Your task to perform on an android device: install app "HBO Max: Stream TV & Movies" Image 0: 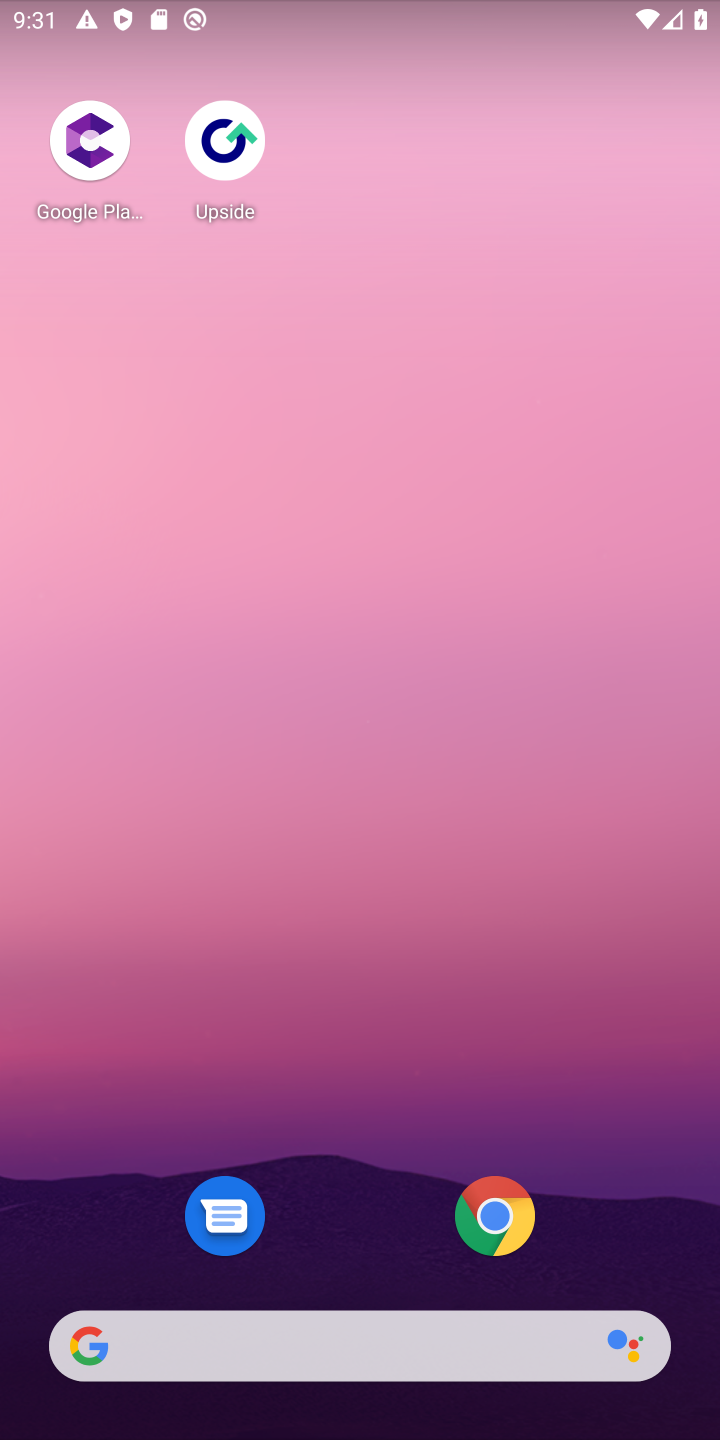
Step 0: drag from (287, 1178) to (343, 11)
Your task to perform on an android device: install app "HBO Max: Stream TV & Movies" Image 1: 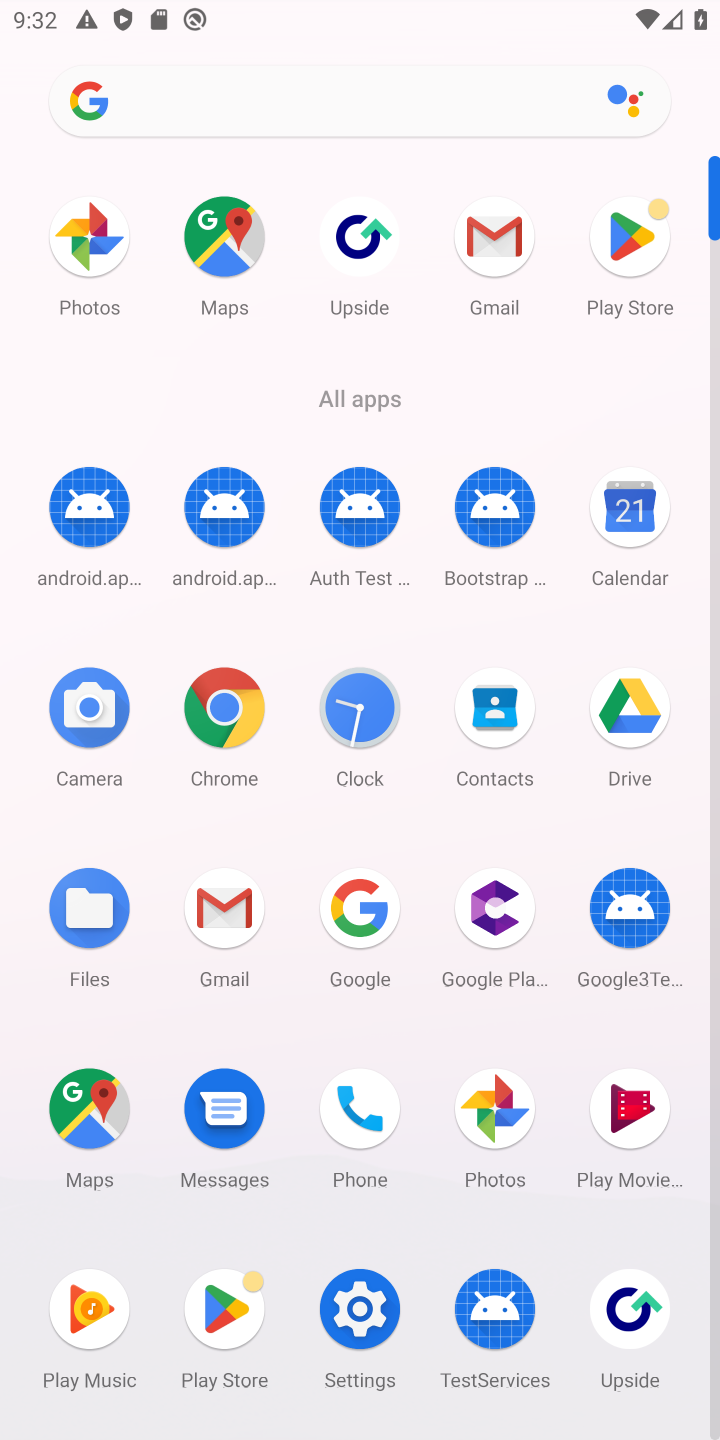
Step 1: click (638, 241)
Your task to perform on an android device: install app "HBO Max: Stream TV & Movies" Image 2: 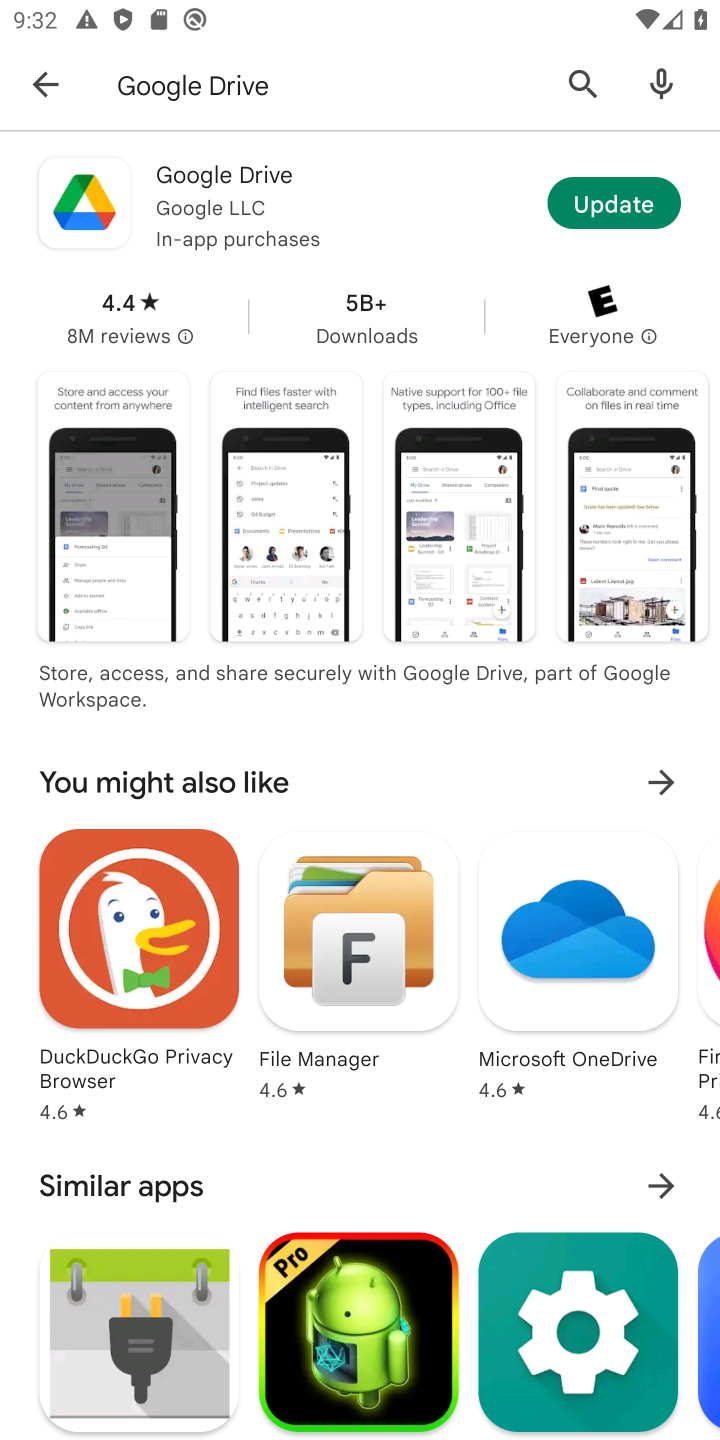
Step 2: press back button
Your task to perform on an android device: install app "HBO Max: Stream TV & Movies" Image 3: 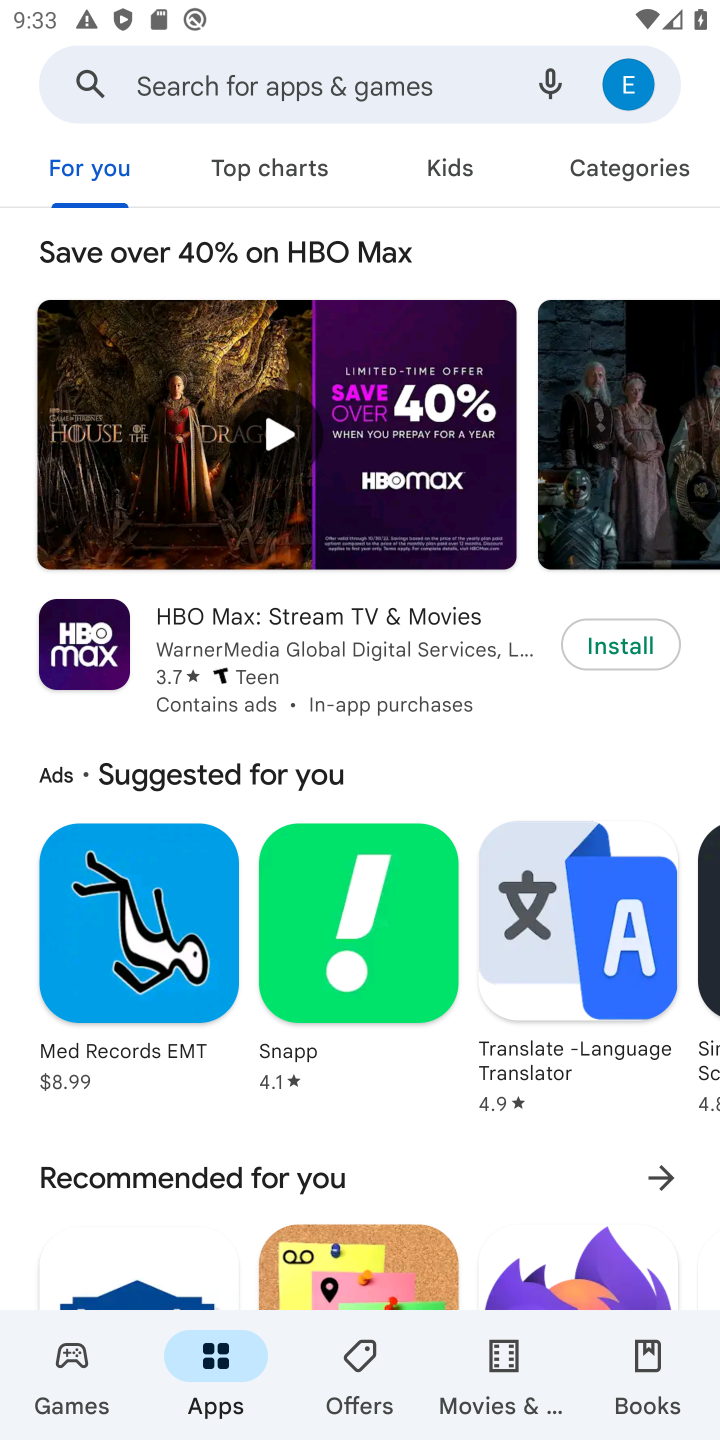
Step 3: click (236, 104)
Your task to perform on an android device: install app "HBO Max: Stream TV & Movies" Image 4: 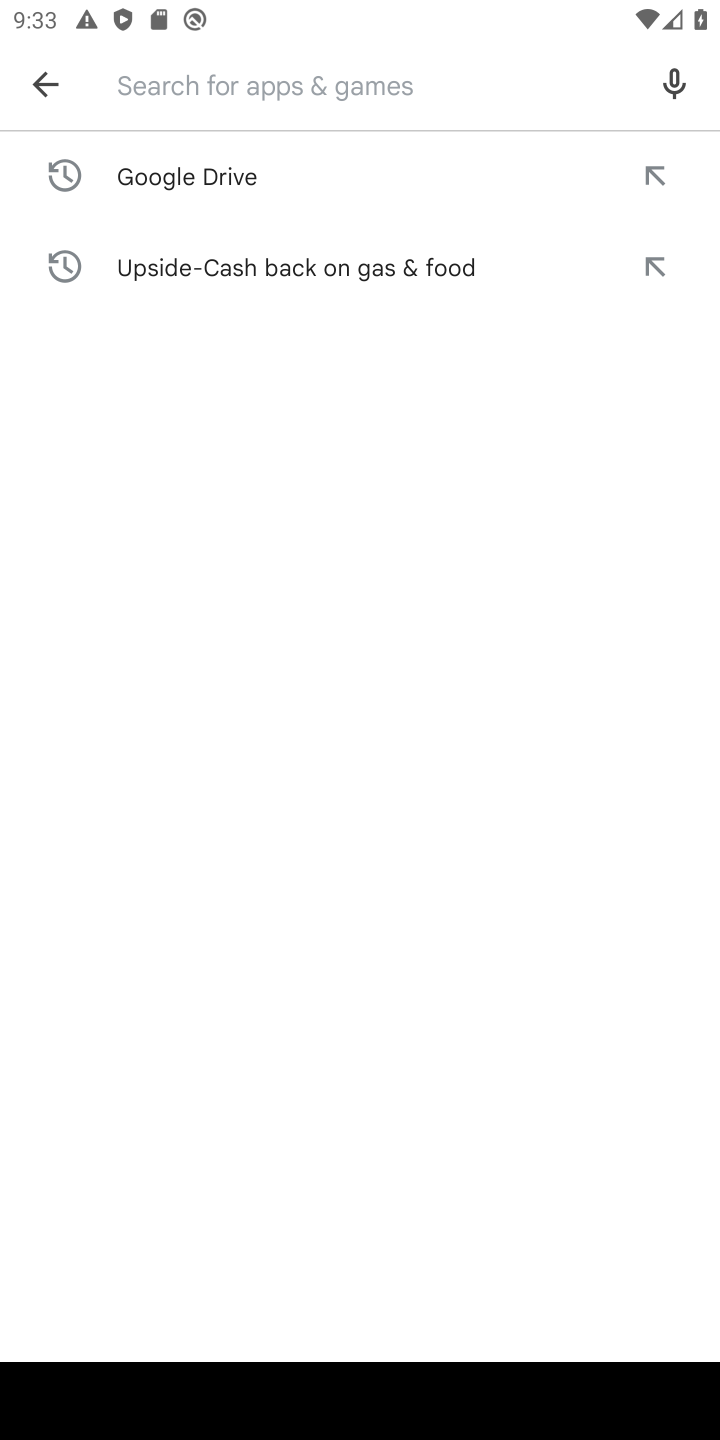
Step 4: type "HBO Max: Stream TV & Movies"
Your task to perform on an android device: install app "HBO Max: Stream TV & Movies" Image 5: 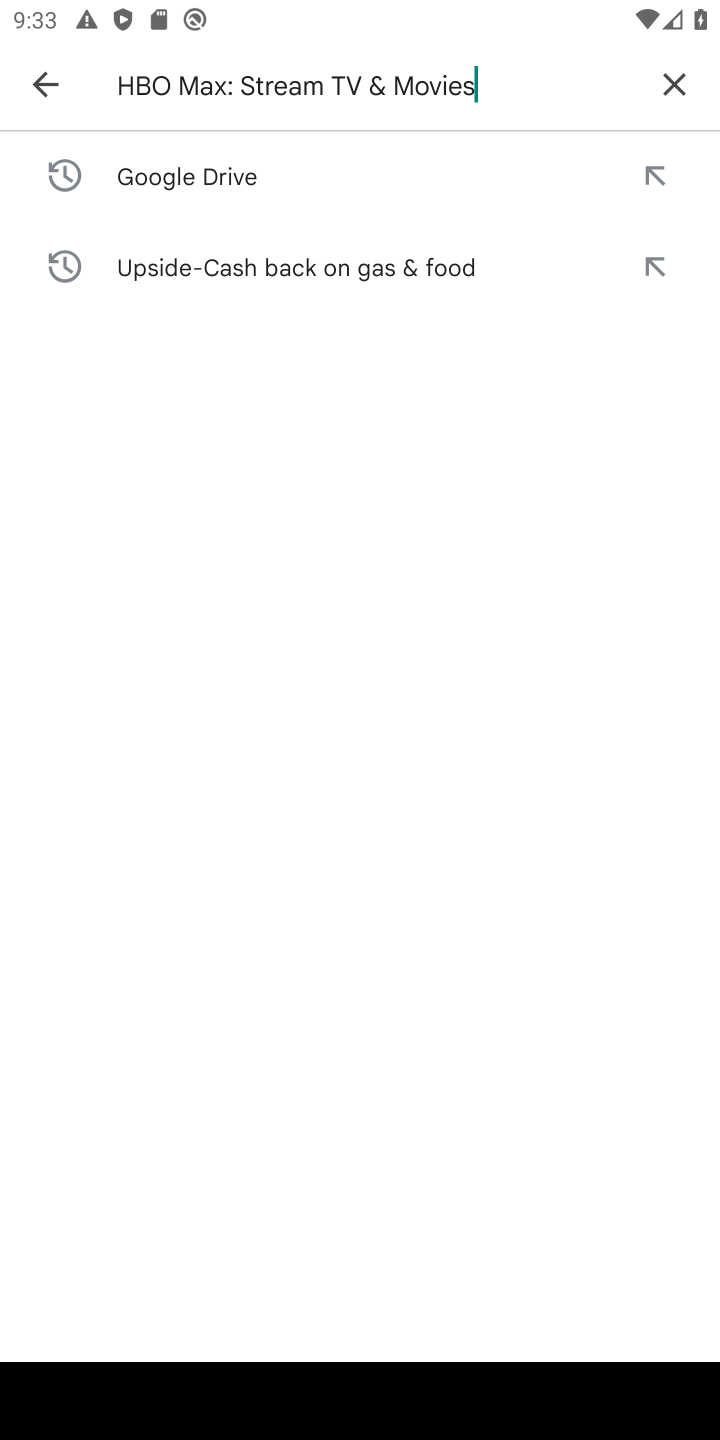
Step 5: press enter
Your task to perform on an android device: install app "HBO Max: Stream TV & Movies" Image 6: 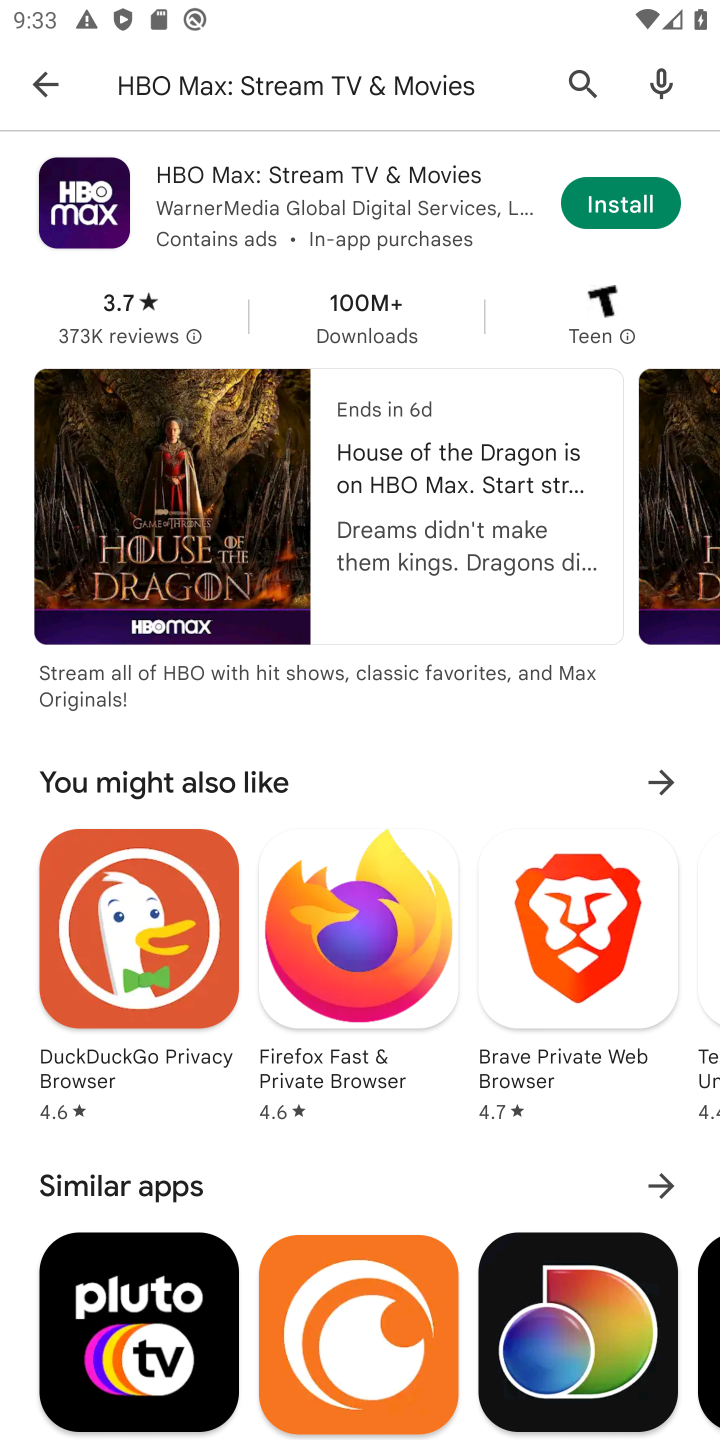
Step 6: click (627, 202)
Your task to perform on an android device: install app "HBO Max: Stream TV & Movies" Image 7: 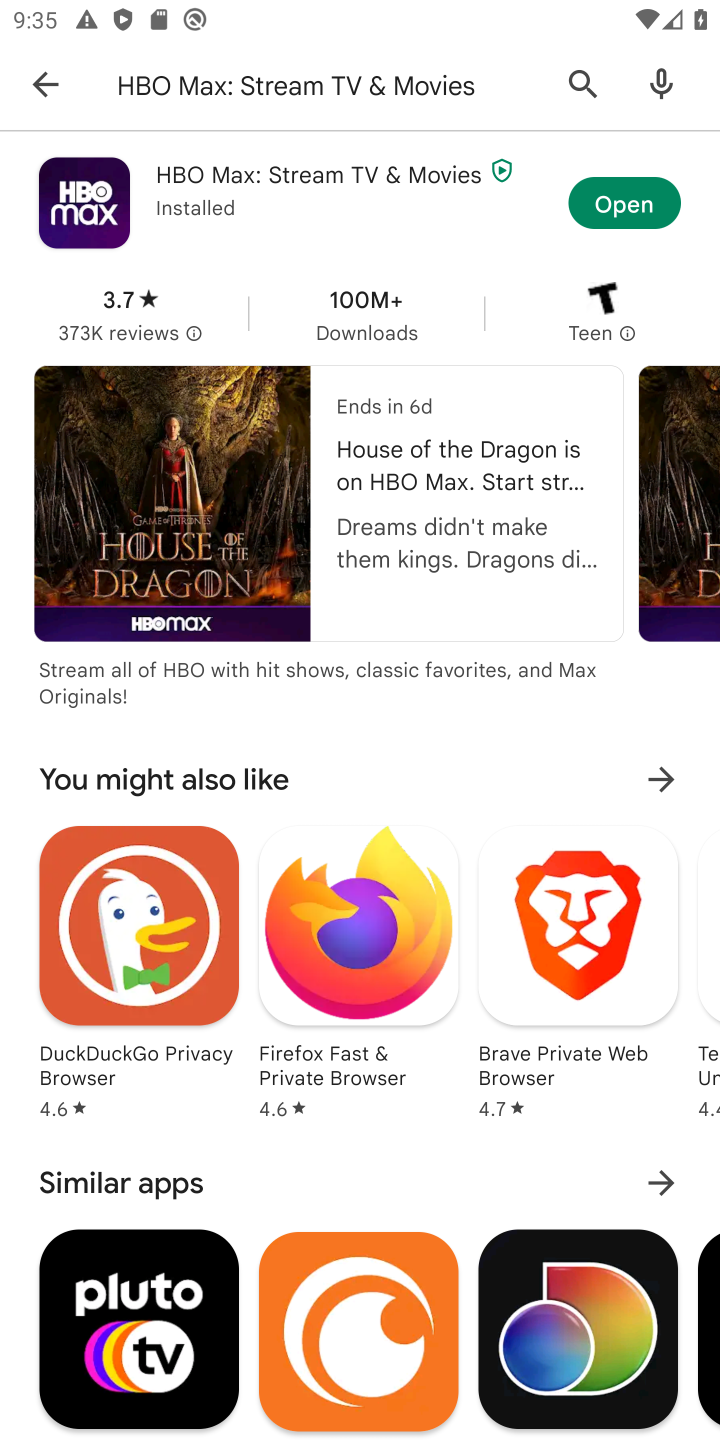
Step 7: click (610, 197)
Your task to perform on an android device: install app "HBO Max: Stream TV & Movies" Image 8: 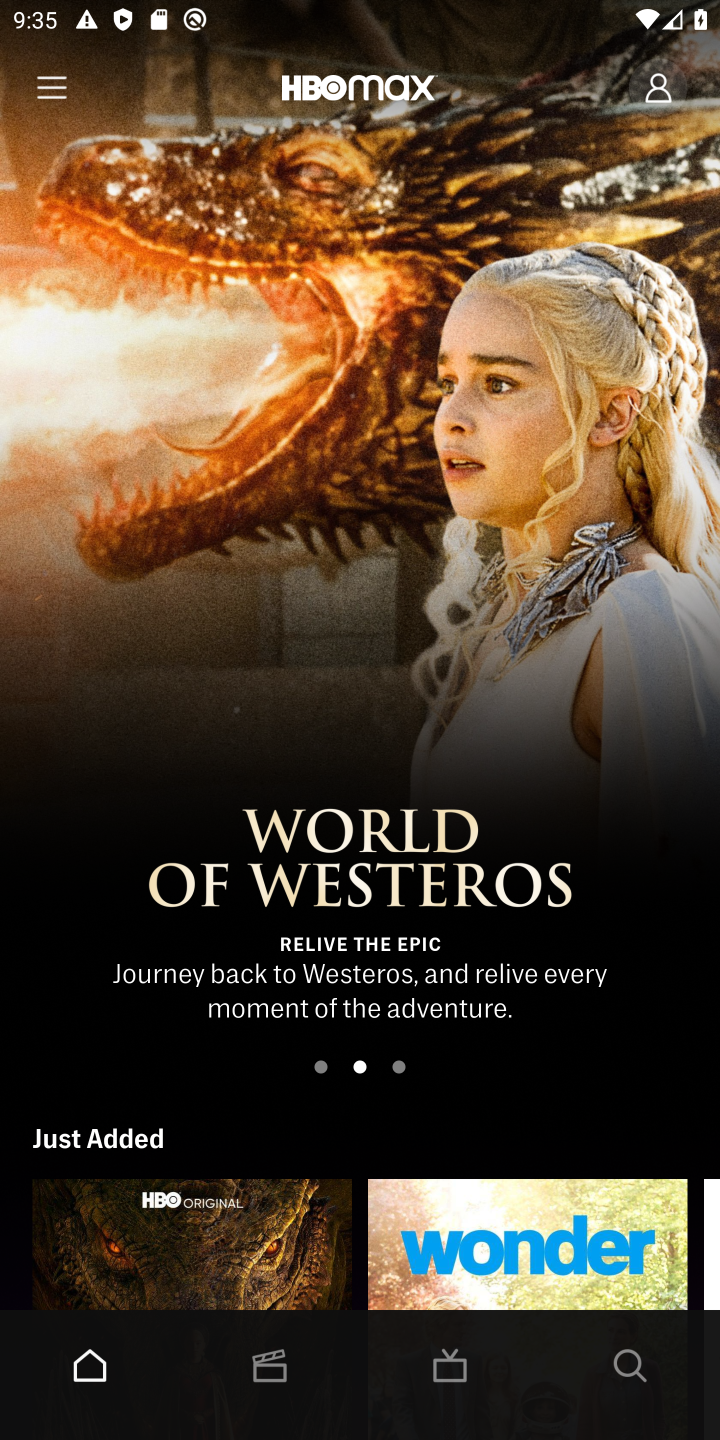
Step 8: task complete